Your task to perform on an android device: What's on my calendar tomorrow? Image 0: 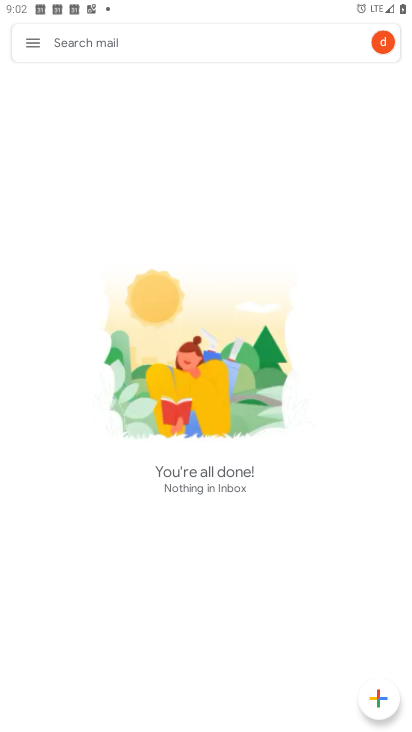
Step 0: press home button
Your task to perform on an android device: What's on my calendar tomorrow? Image 1: 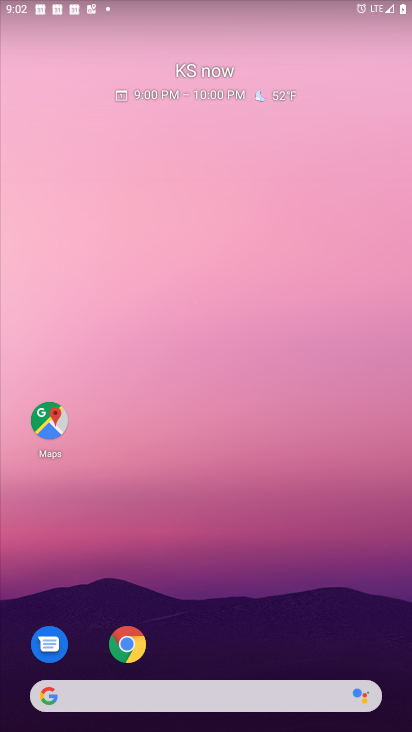
Step 1: drag from (394, 660) to (285, 93)
Your task to perform on an android device: What's on my calendar tomorrow? Image 2: 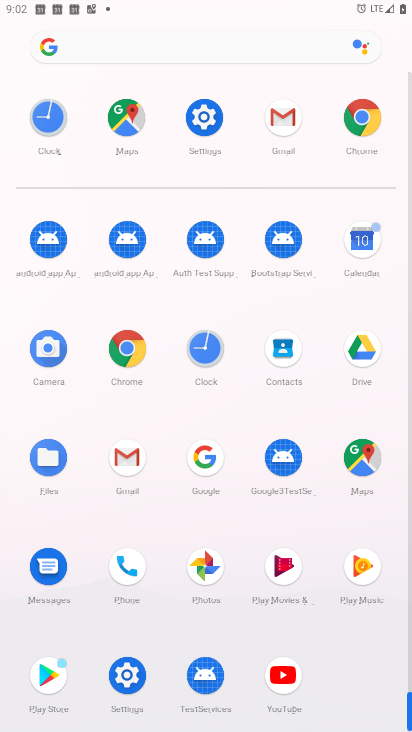
Step 2: click (362, 235)
Your task to perform on an android device: What's on my calendar tomorrow? Image 3: 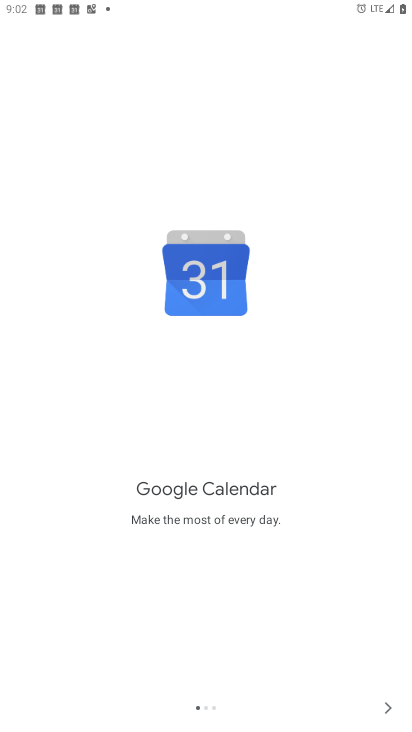
Step 3: click (382, 703)
Your task to perform on an android device: What's on my calendar tomorrow? Image 4: 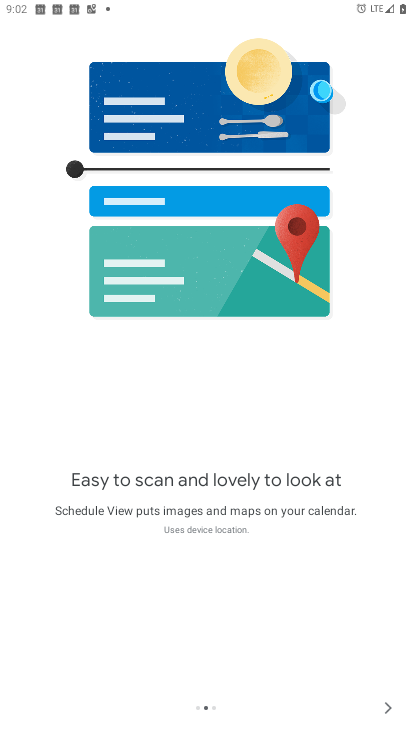
Step 4: click (388, 710)
Your task to perform on an android device: What's on my calendar tomorrow? Image 5: 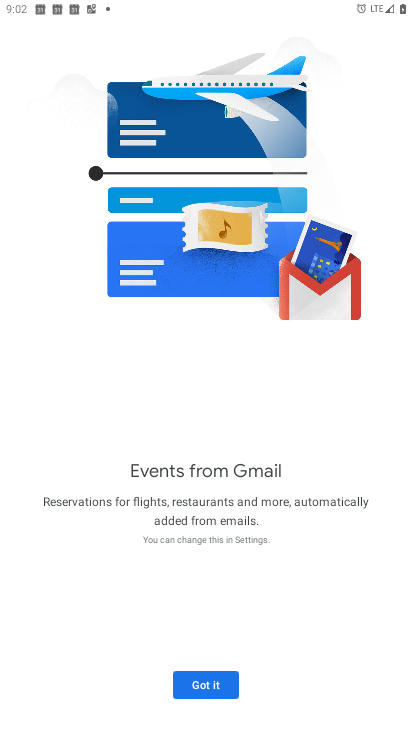
Step 5: click (204, 686)
Your task to perform on an android device: What's on my calendar tomorrow? Image 6: 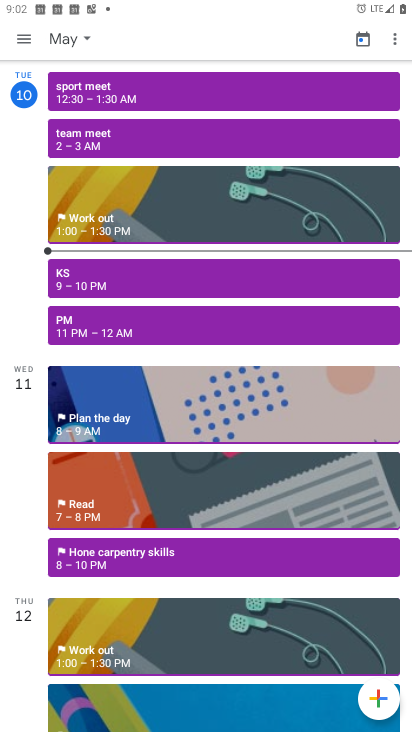
Step 6: task complete